Your task to perform on an android device: Go to Wikipedia Image 0: 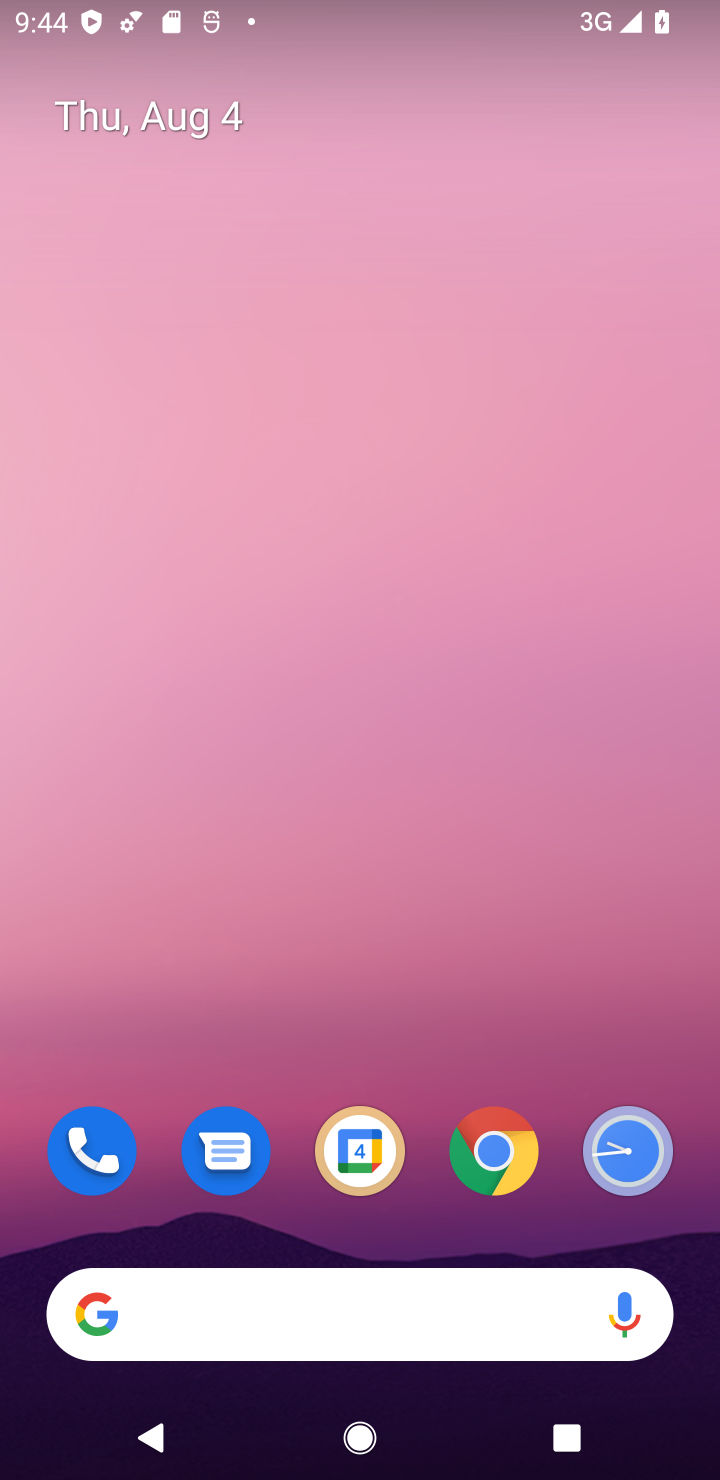
Step 0: click (504, 1165)
Your task to perform on an android device: Go to Wikipedia Image 1: 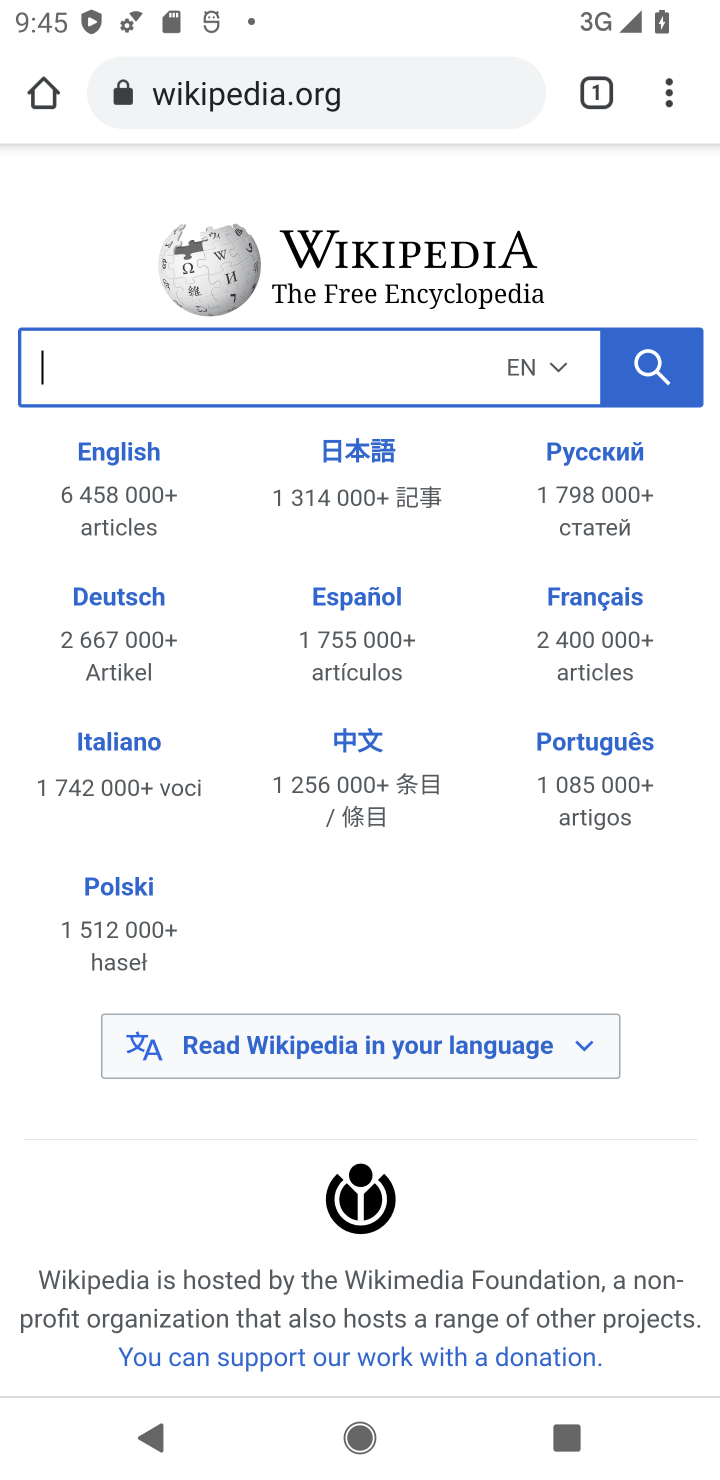
Step 1: task complete